Your task to perform on an android device: toggle sleep mode Image 0: 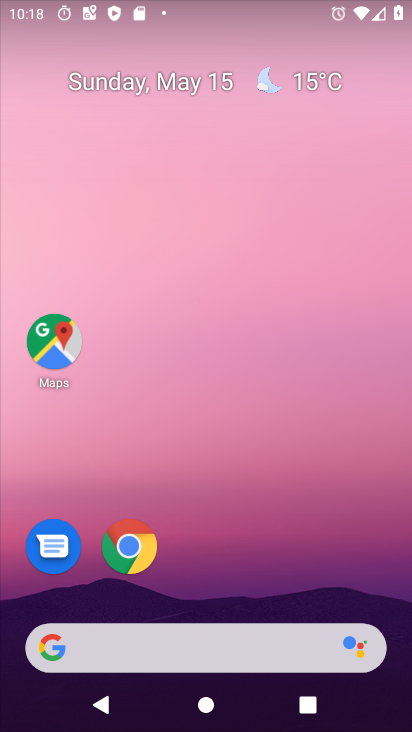
Step 0: drag from (212, 346) to (188, 170)
Your task to perform on an android device: toggle sleep mode Image 1: 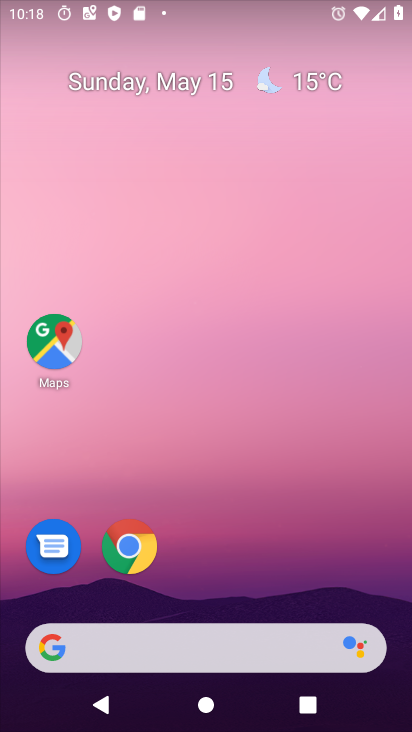
Step 1: drag from (238, 476) to (223, 0)
Your task to perform on an android device: toggle sleep mode Image 2: 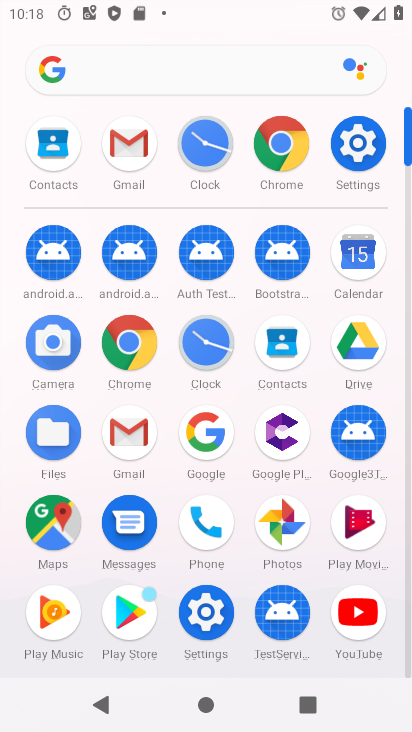
Step 2: click (352, 149)
Your task to perform on an android device: toggle sleep mode Image 3: 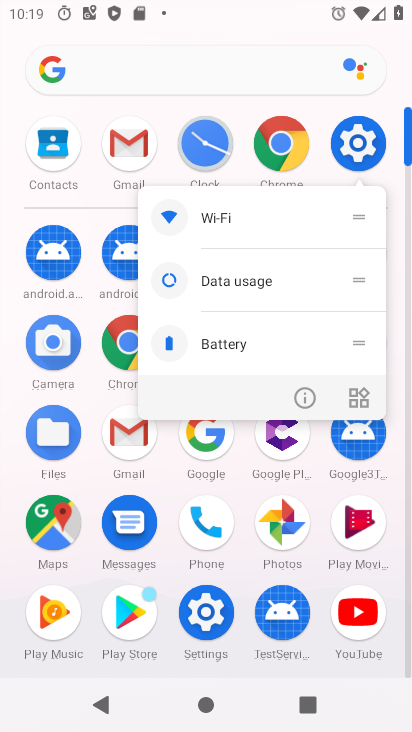
Step 3: click (360, 155)
Your task to perform on an android device: toggle sleep mode Image 4: 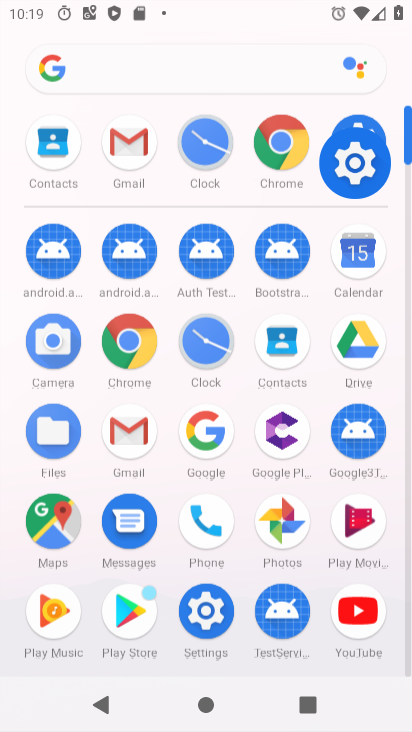
Step 4: click (365, 150)
Your task to perform on an android device: toggle sleep mode Image 5: 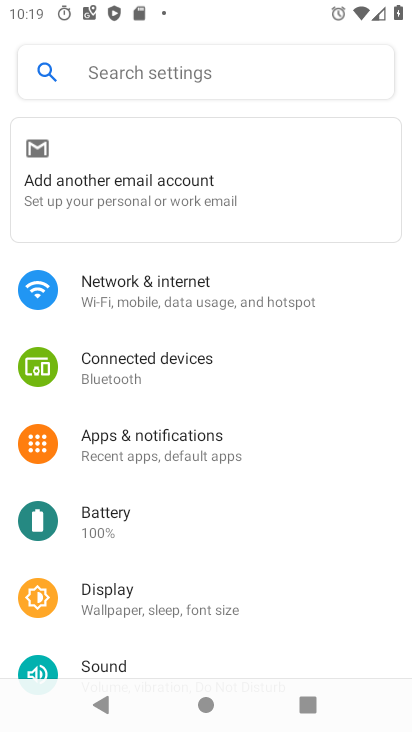
Step 5: click (121, 607)
Your task to perform on an android device: toggle sleep mode Image 6: 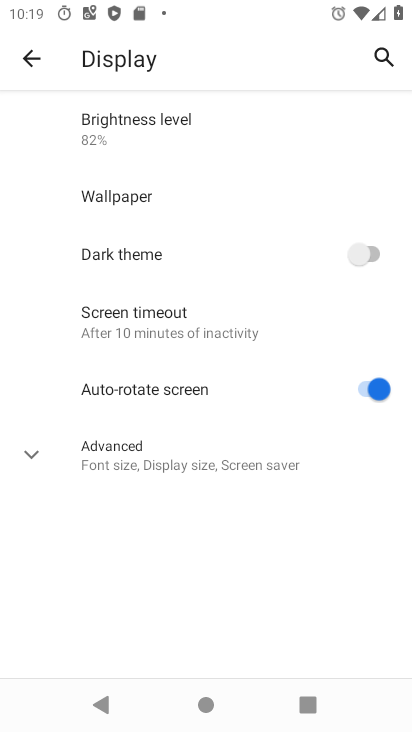
Step 6: click (112, 326)
Your task to perform on an android device: toggle sleep mode Image 7: 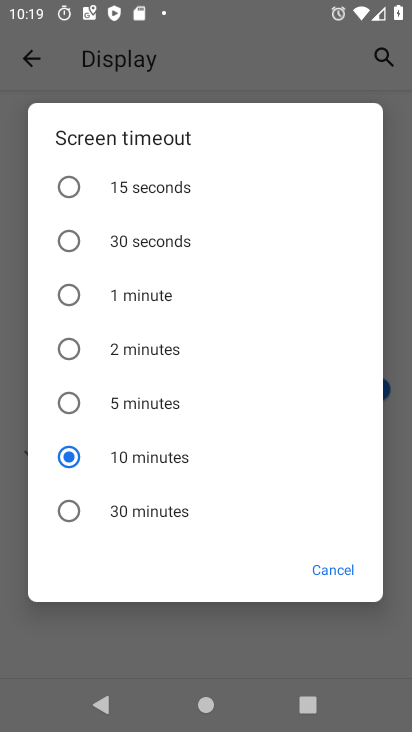
Step 7: task complete